Your task to perform on an android device: toggle priority inbox in the gmail app Image 0: 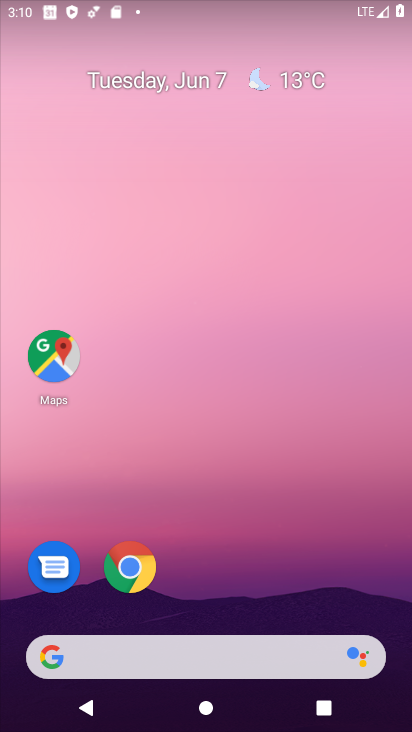
Step 0: drag from (215, 494) to (281, 54)
Your task to perform on an android device: toggle priority inbox in the gmail app Image 1: 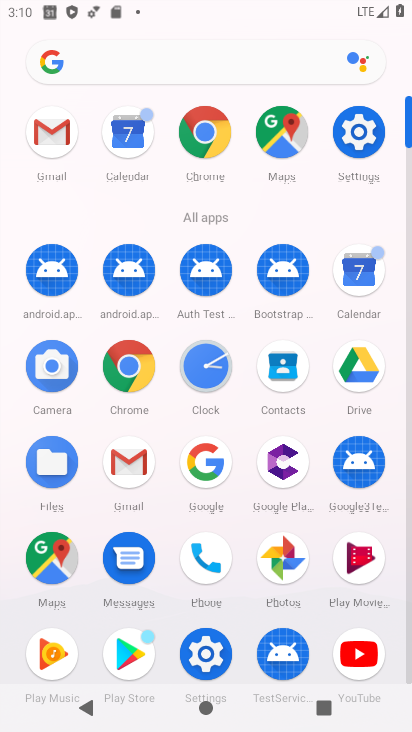
Step 1: click (48, 126)
Your task to perform on an android device: toggle priority inbox in the gmail app Image 2: 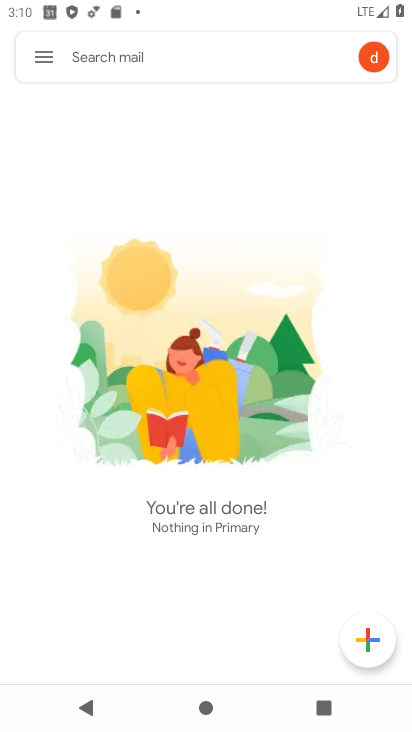
Step 2: click (34, 53)
Your task to perform on an android device: toggle priority inbox in the gmail app Image 3: 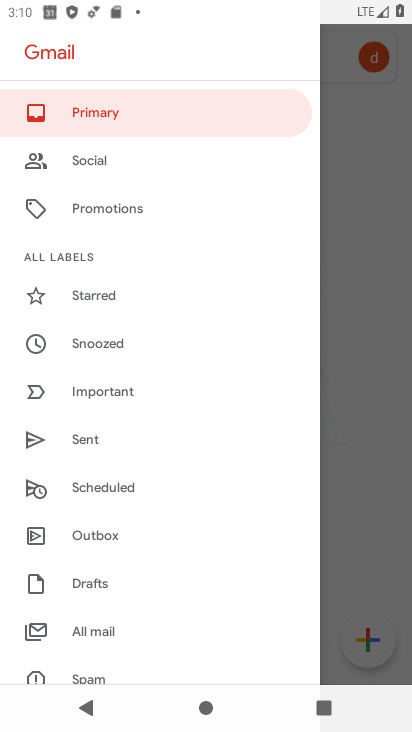
Step 3: drag from (143, 604) to (240, 28)
Your task to perform on an android device: toggle priority inbox in the gmail app Image 4: 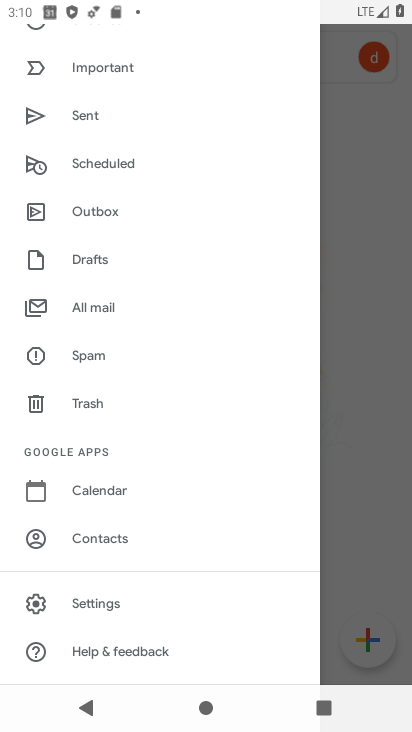
Step 4: click (106, 611)
Your task to perform on an android device: toggle priority inbox in the gmail app Image 5: 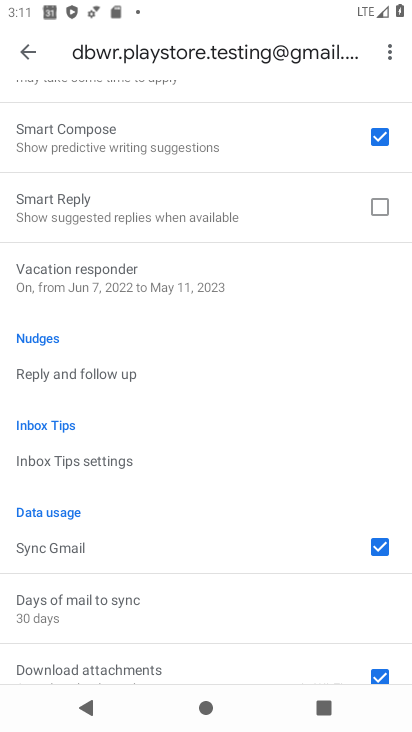
Step 5: drag from (113, 602) to (158, 726)
Your task to perform on an android device: toggle priority inbox in the gmail app Image 6: 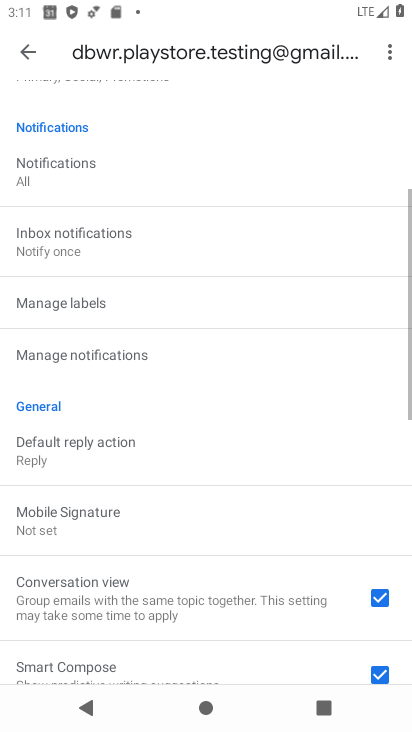
Step 6: drag from (211, 196) to (147, 715)
Your task to perform on an android device: toggle priority inbox in the gmail app Image 7: 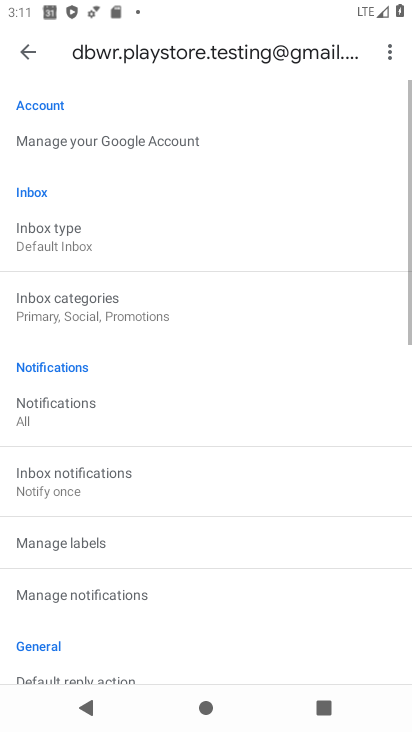
Step 7: click (63, 231)
Your task to perform on an android device: toggle priority inbox in the gmail app Image 8: 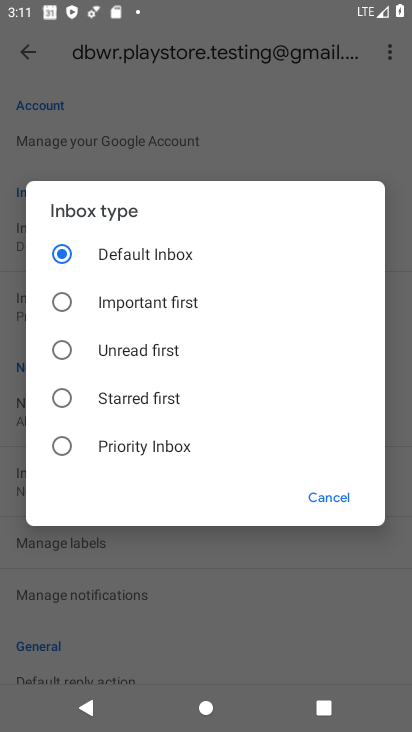
Step 8: click (51, 444)
Your task to perform on an android device: toggle priority inbox in the gmail app Image 9: 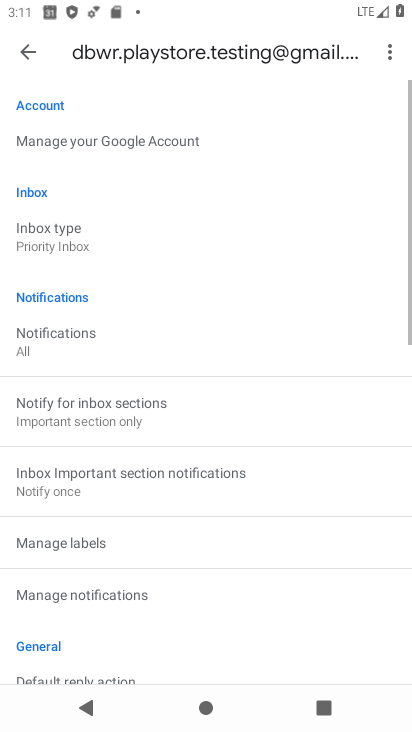
Step 9: task complete